Your task to perform on an android device: What's on my calendar tomorrow? Image 0: 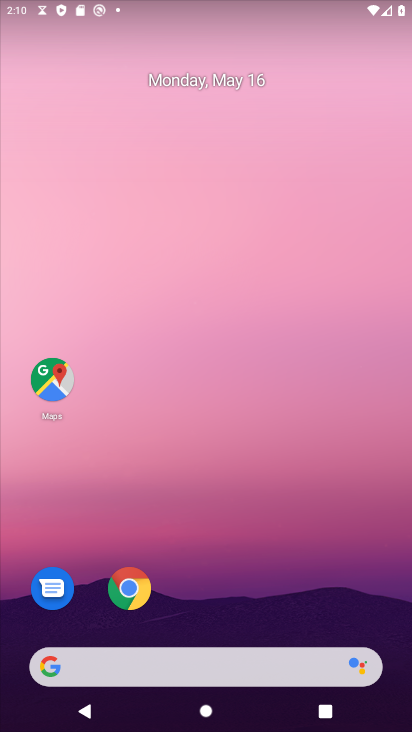
Step 0: drag from (227, 724) to (224, 146)
Your task to perform on an android device: What's on my calendar tomorrow? Image 1: 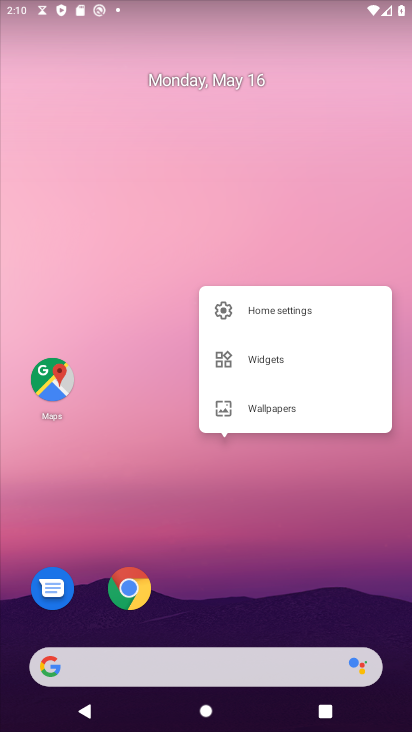
Step 1: click (226, 150)
Your task to perform on an android device: What's on my calendar tomorrow? Image 2: 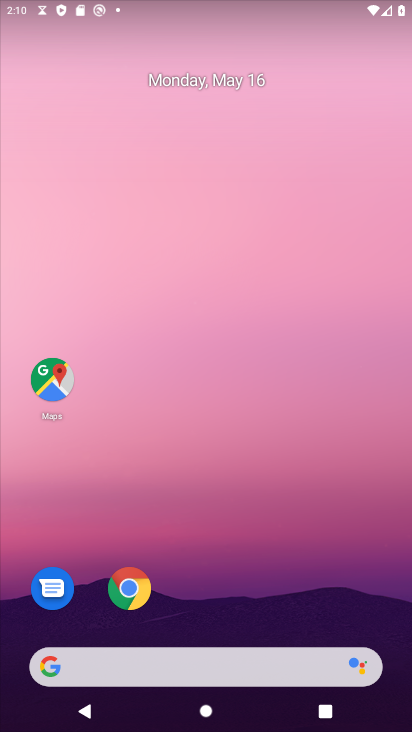
Step 2: drag from (219, 729) to (227, 133)
Your task to perform on an android device: What's on my calendar tomorrow? Image 3: 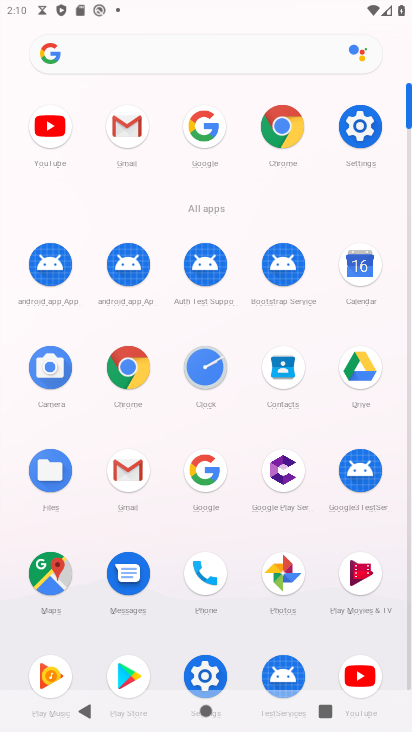
Step 3: click (365, 263)
Your task to perform on an android device: What's on my calendar tomorrow? Image 4: 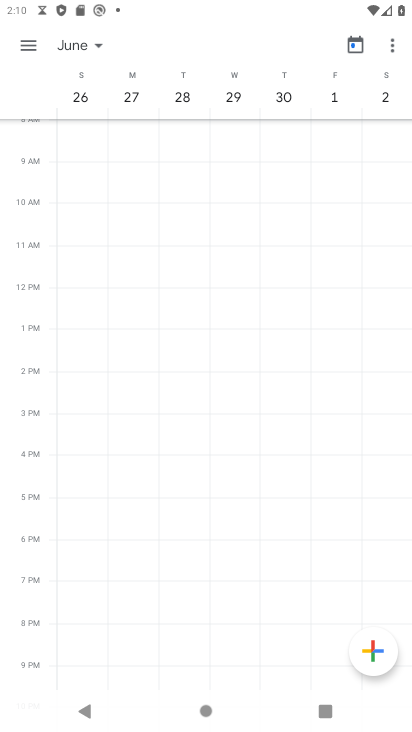
Step 4: click (66, 44)
Your task to perform on an android device: What's on my calendar tomorrow? Image 5: 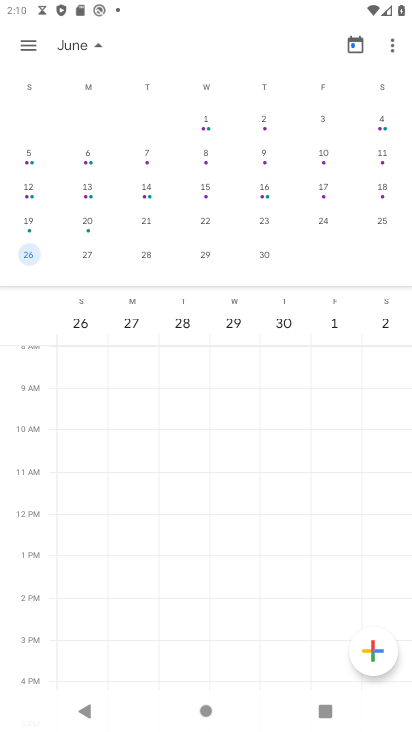
Step 5: drag from (37, 187) to (411, 201)
Your task to perform on an android device: What's on my calendar tomorrow? Image 6: 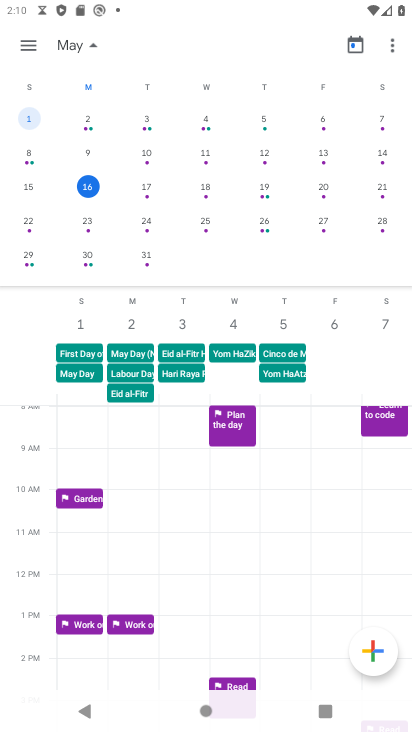
Step 6: click (145, 183)
Your task to perform on an android device: What's on my calendar tomorrow? Image 7: 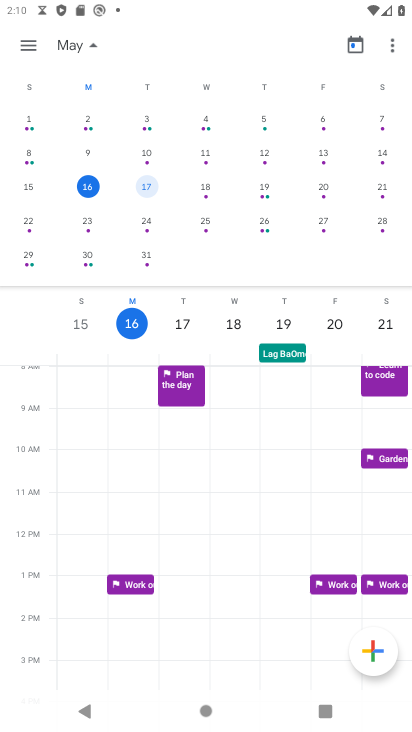
Step 7: task complete